Your task to perform on an android device: Open Google Chrome and click the shortcut for Amazon.com Image 0: 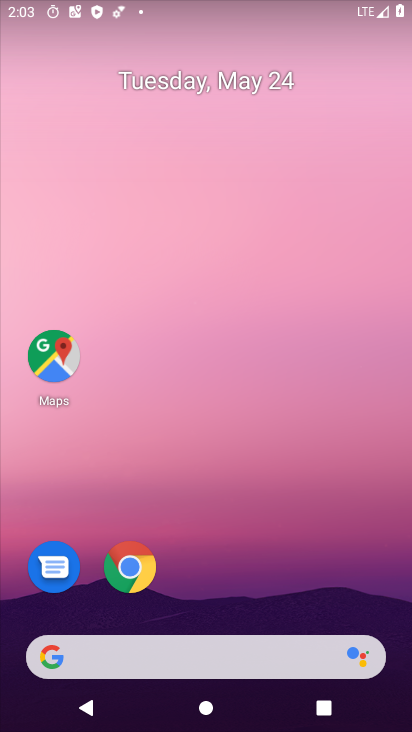
Step 0: click (136, 558)
Your task to perform on an android device: Open Google Chrome and click the shortcut for Amazon.com Image 1: 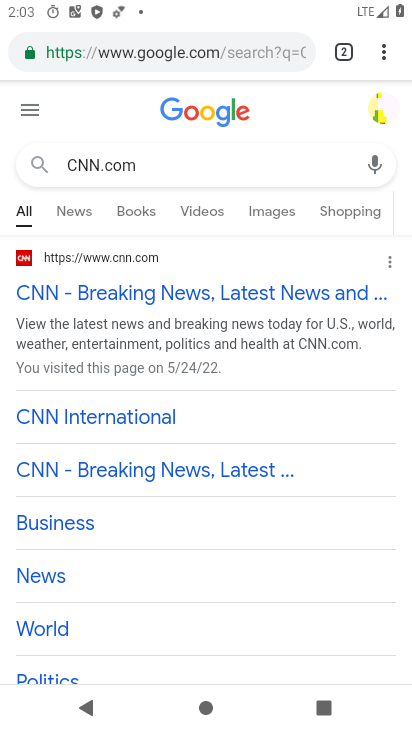
Step 1: click (383, 52)
Your task to perform on an android device: Open Google Chrome and click the shortcut for Amazon.com Image 2: 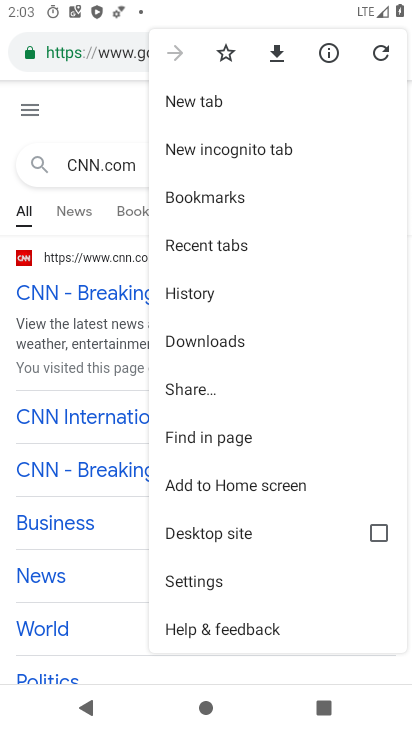
Step 2: click (210, 109)
Your task to perform on an android device: Open Google Chrome and click the shortcut for Amazon.com Image 3: 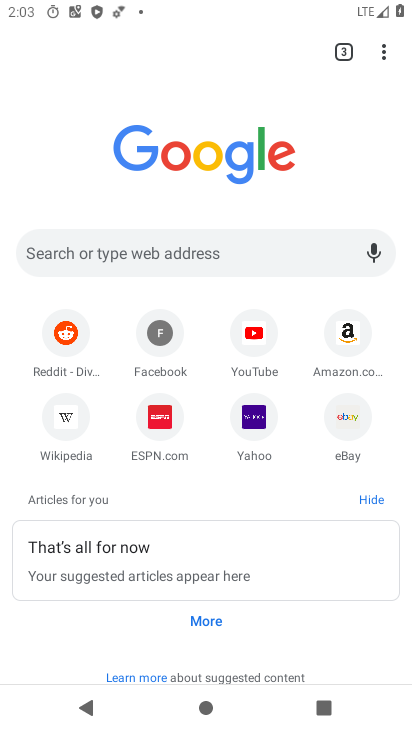
Step 3: click (360, 354)
Your task to perform on an android device: Open Google Chrome and click the shortcut for Amazon.com Image 4: 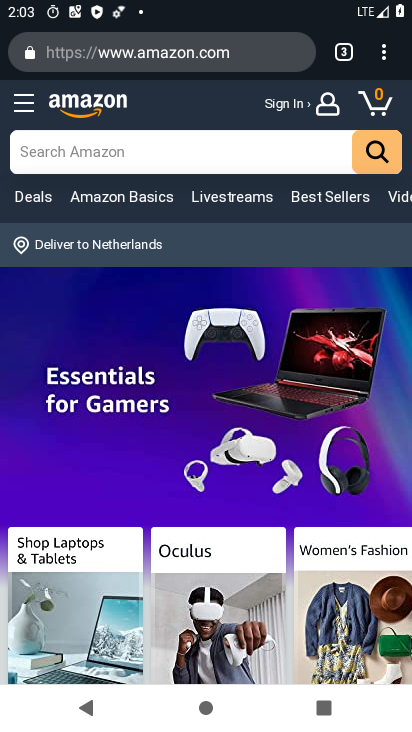
Step 4: task complete